Your task to perform on an android device: toggle pop-ups in chrome Image 0: 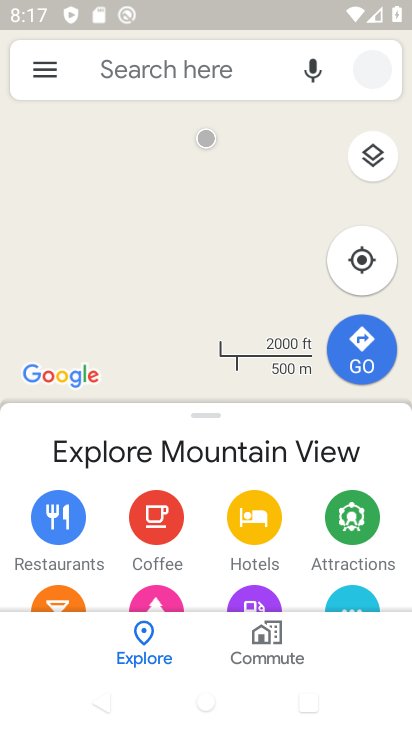
Step 0: click (240, 535)
Your task to perform on an android device: toggle pop-ups in chrome Image 1: 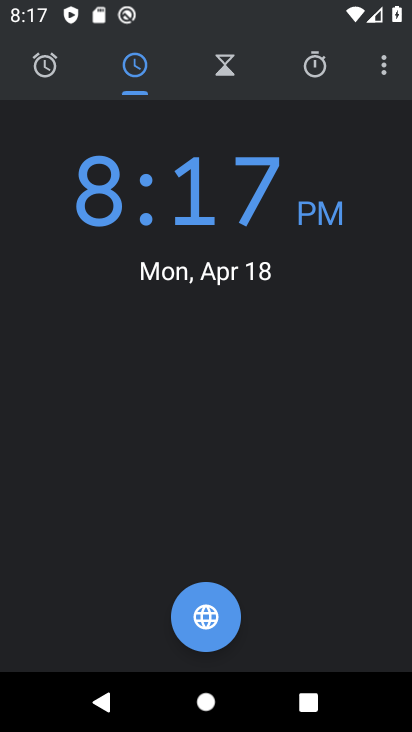
Step 1: press home button
Your task to perform on an android device: toggle pop-ups in chrome Image 2: 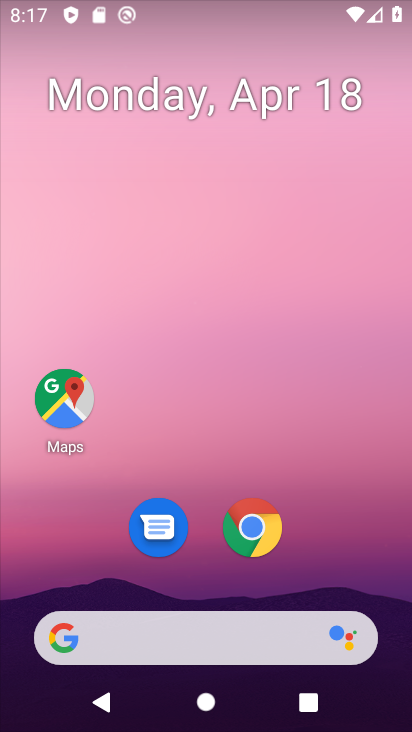
Step 2: click (246, 539)
Your task to perform on an android device: toggle pop-ups in chrome Image 3: 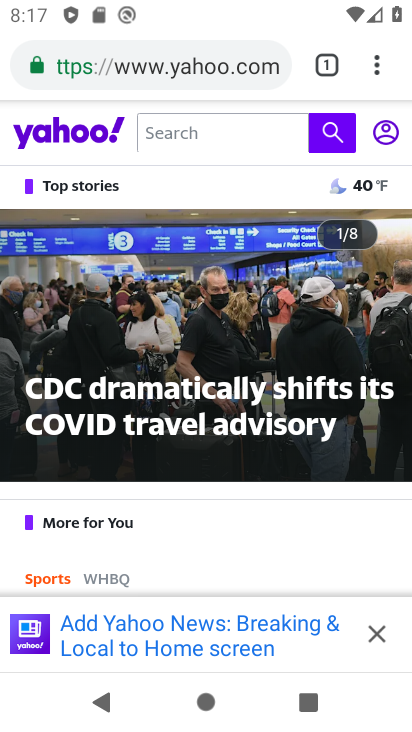
Step 3: click (378, 68)
Your task to perform on an android device: toggle pop-ups in chrome Image 4: 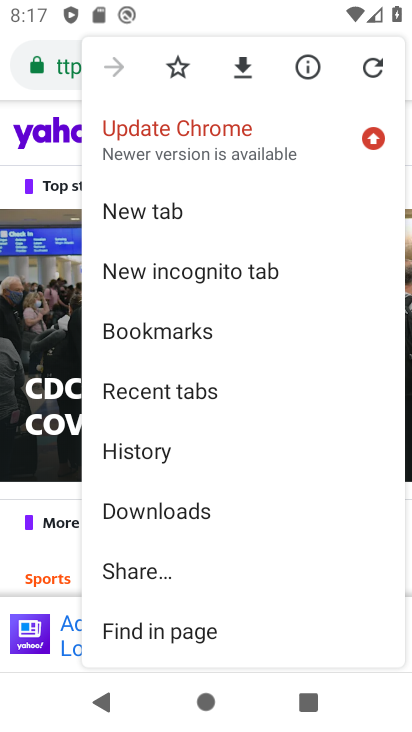
Step 4: drag from (179, 575) to (248, 134)
Your task to perform on an android device: toggle pop-ups in chrome Image 5: 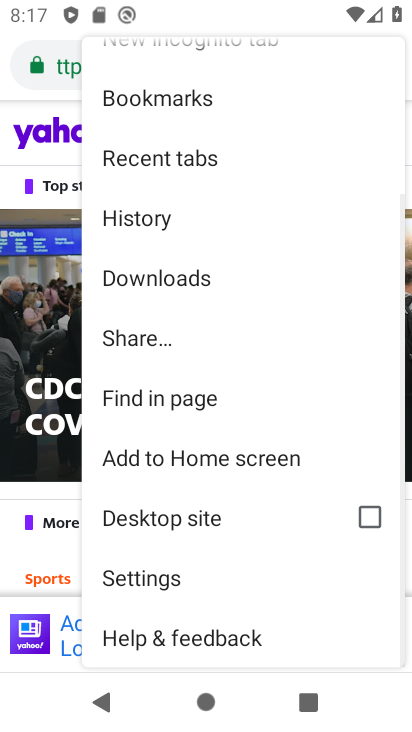
Step 5: click (156, 576)
Your task to perform on an android device: toggle pop-ups in chrome Image 6: 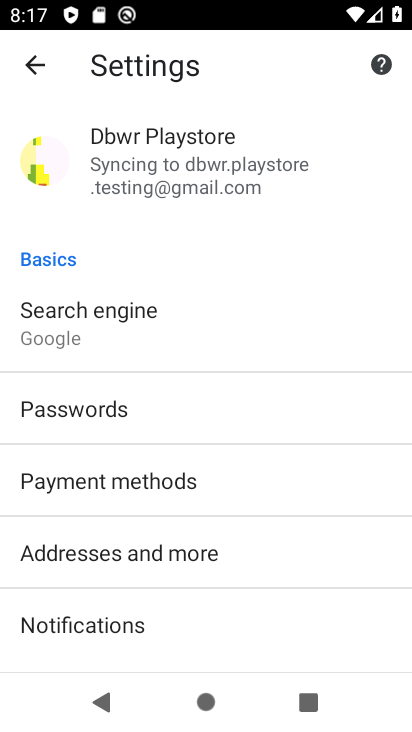
Step 6: drag from (168, 597) to (254, 172)
Your task to perform on an android device: toggle pop-ups in chrome Image 7: 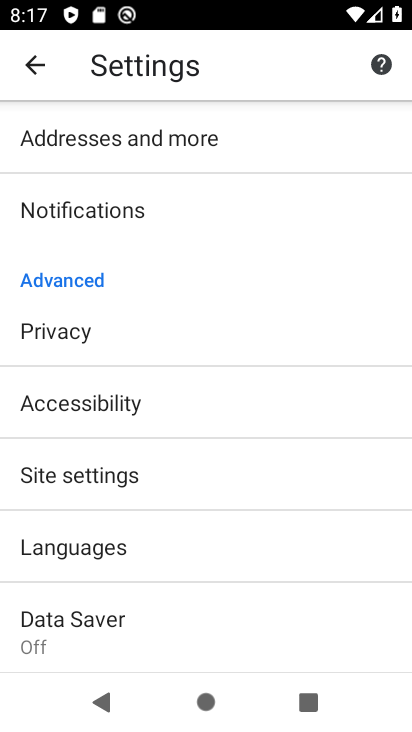
Step 7: click (150, 483)
Your task to perform on an android device: toggle pop-ups in chrome Image 8: 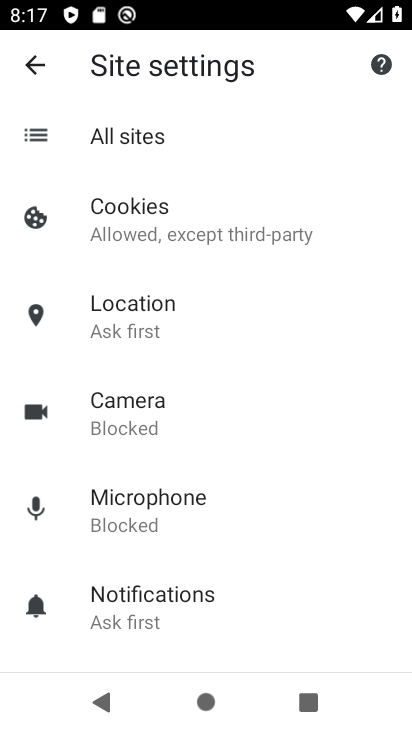
Step 8: drag from (197, 566) to (240, 274)
Your task to perform on an android device: toggle pop-ups in chrome Image 9: 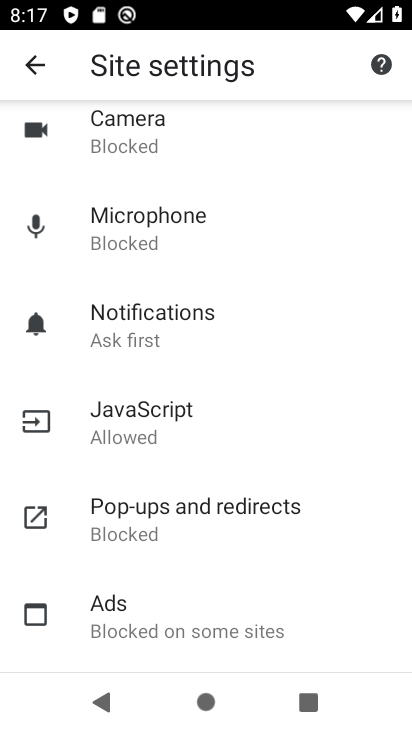
Step 9: click (175, 509)
Your task to perform on an android device: toggle pop-ups in chrome Image 10: 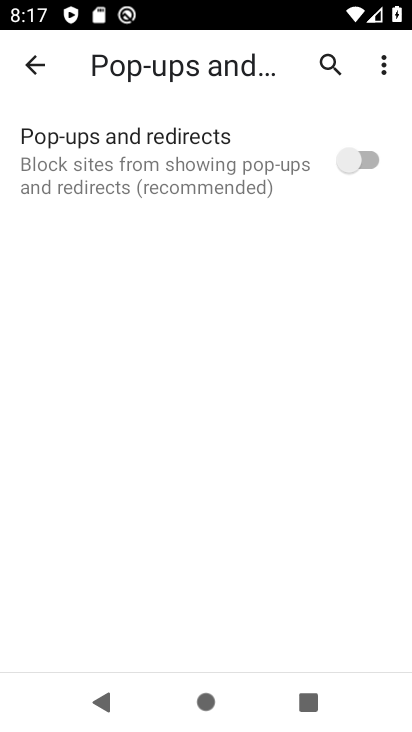
Step 10: task complete